Your task to perform on an android device: find which apps use the phone's location Image 0: 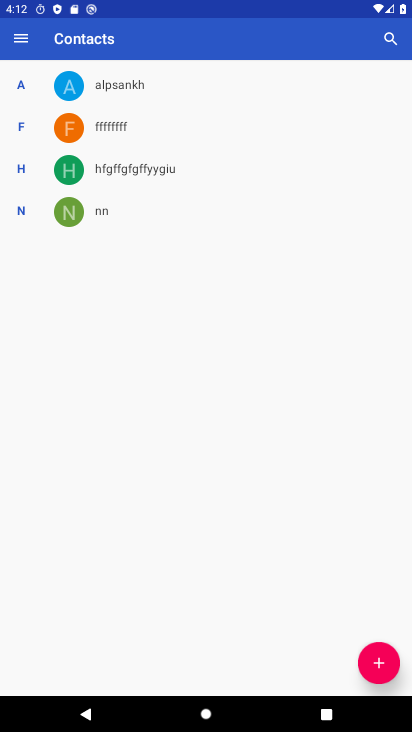
Step 0: press home button
Your task to perform on an android device: find which apps use the phone's location Image 1: 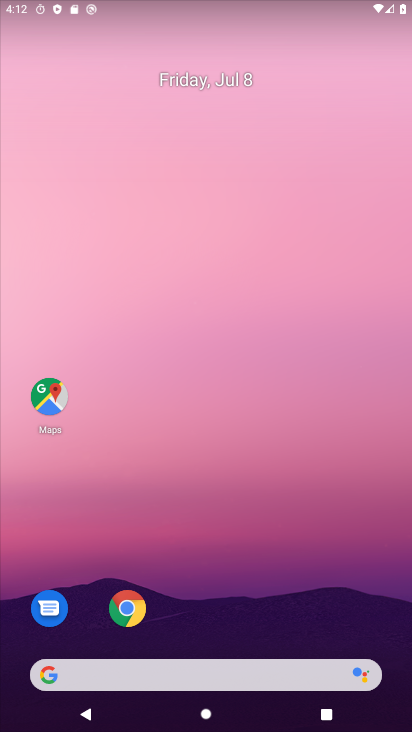
Step 1: drag from (292, 508) to (233, 10)
Your task to perform on an android device: find which apps use the phone's location Image 2: 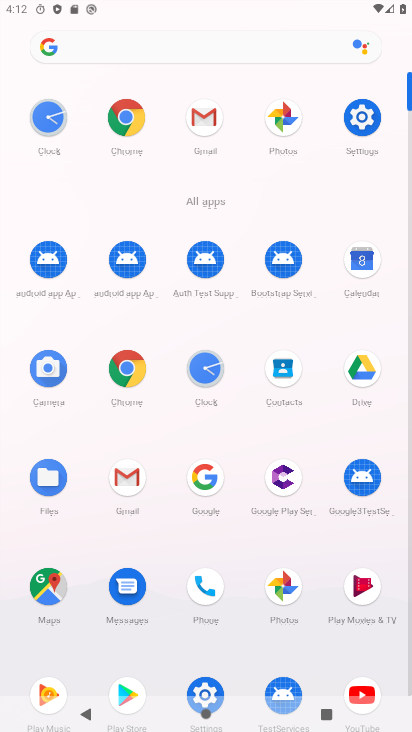
Step 2: click (366, 121)
Your task to perform on an android device: find which apps use the phone's location Image 3: 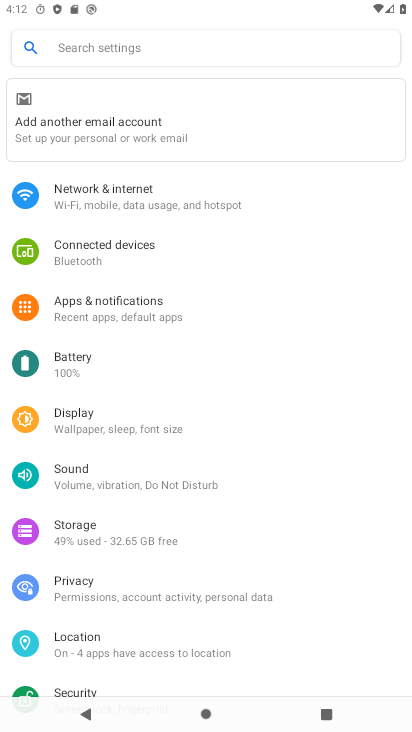
Step 3: click (85, 642)
Your task to perform on an android device: find which apps use the phone's location Image 4: 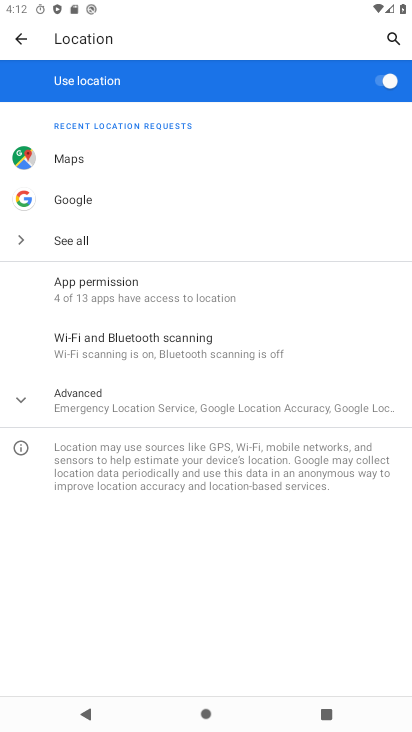
Step 4: click (131, 288)
Your task to perform on an android device: find which apps use the phone's location Image 5: 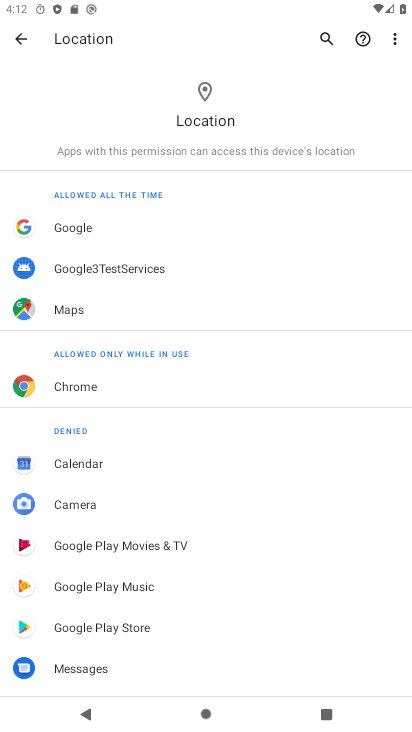
Step 5: task complete